Your task to perform on an android device: Open the stopwatch Image 0: 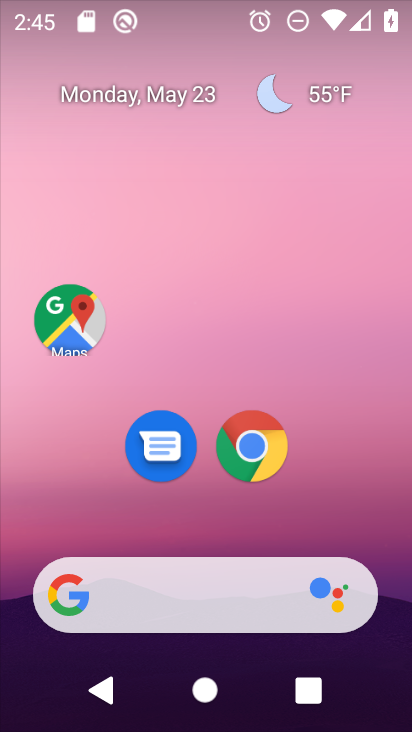
Step 0: drag from (208, 542) to (193, 150)
Your task to perform on an android device: Open the stopwatch Image 1: 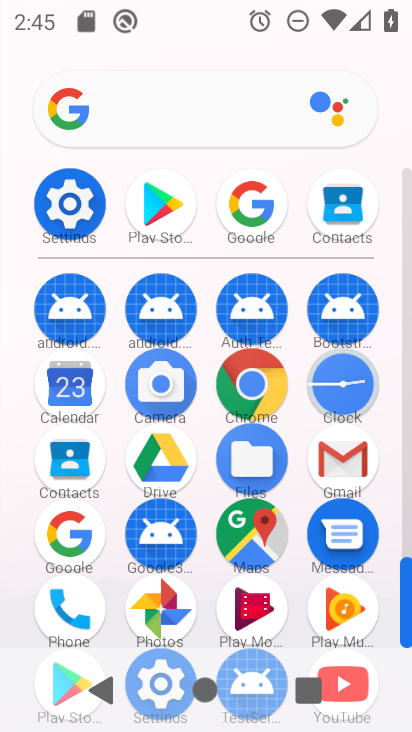
Step 1: click (342, 398)
Your task to perform on an android device: Open the stopwatch Image 2: 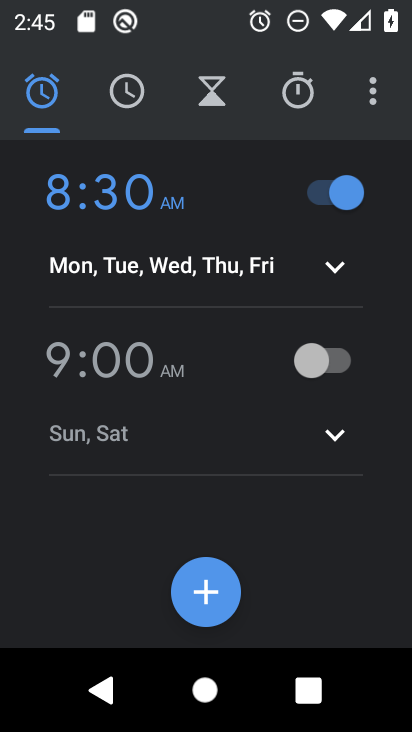
Step 2: click (303, 85)
Your task to perform on an android device: Open the stopwatch Image 3: 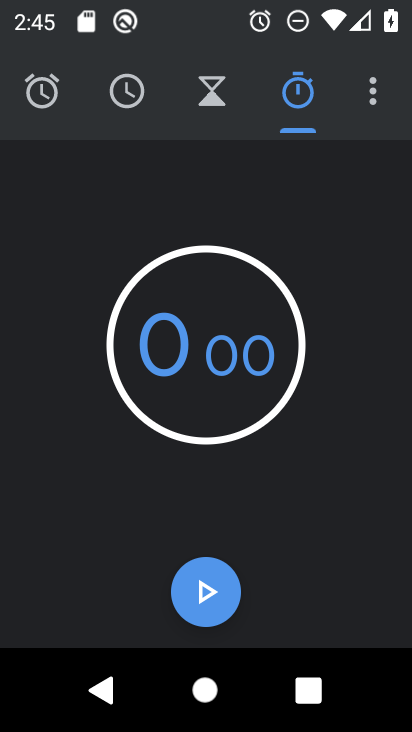
Step 3: task complete